Your task to perform on an android device: open chrome privacy settings Image 0: 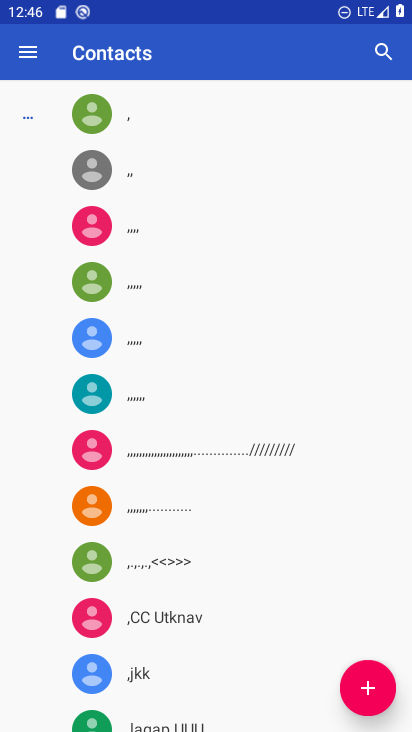
Step 0: press home button
Your task to perform on an android device: open chrome privacy settings Image 1: 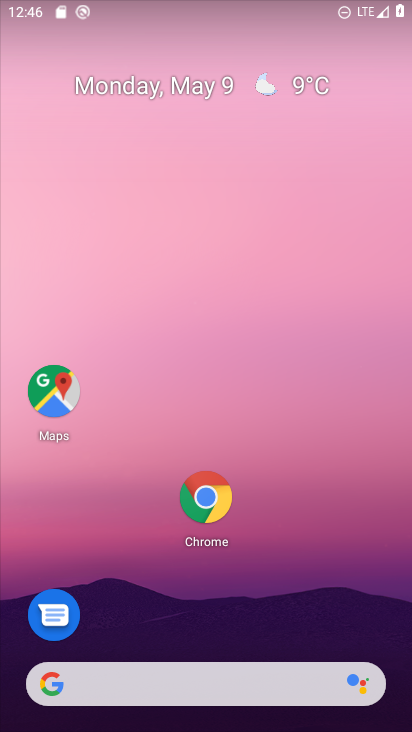
Step 1: click (215, 504)
Your task to perform on an android device: open chrome privacy settings Image 2: 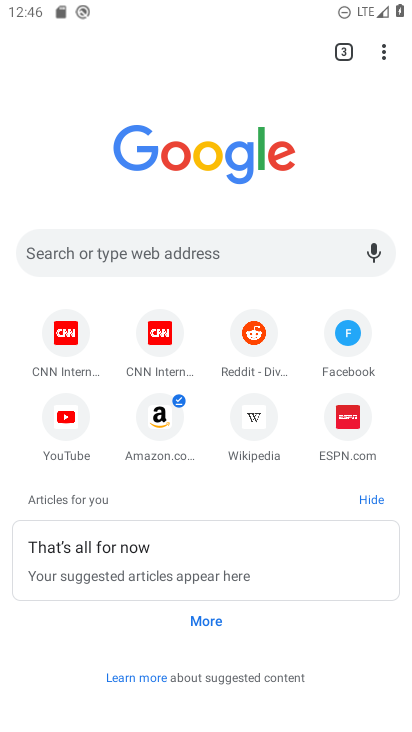
Step 2: drag from (384, 47) to (237, 433)
Your task to perform on an android device: open chrome privacy settings Image 3: 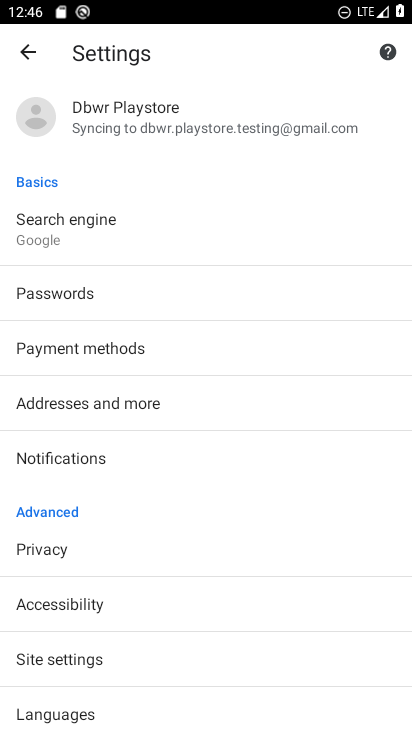
Step 3: drag from (190, 683) to (277, 368)
Your task to perform on an android device: open chrome privacy settings Image 4: 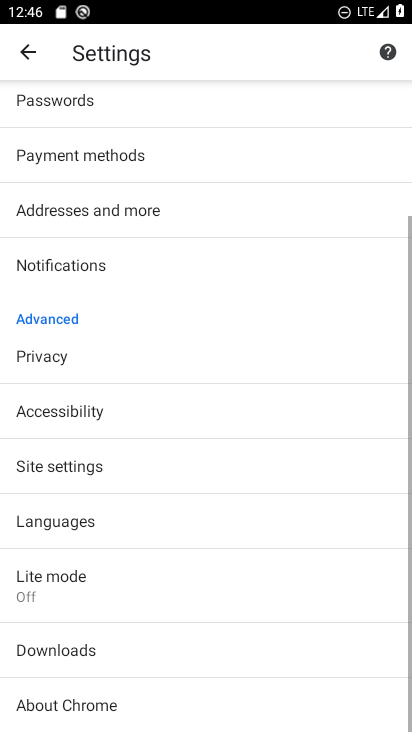
Step 4: click (97, 357)
Your task to perform on an android device: open chrome privacy settings Image 5: 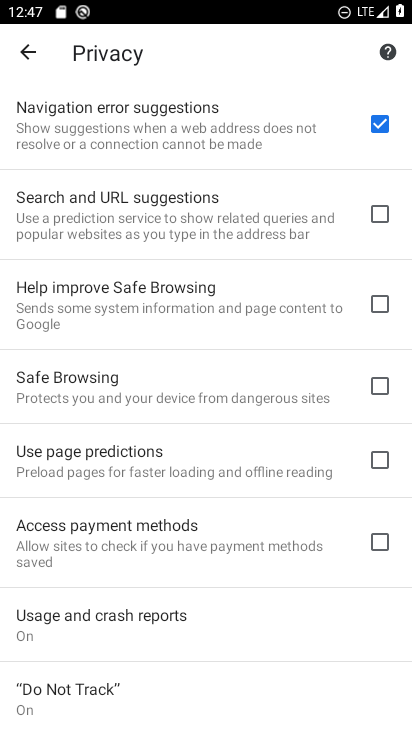
Step 5: task complete